Your task to perform on an android device: change timer sound Image 0: 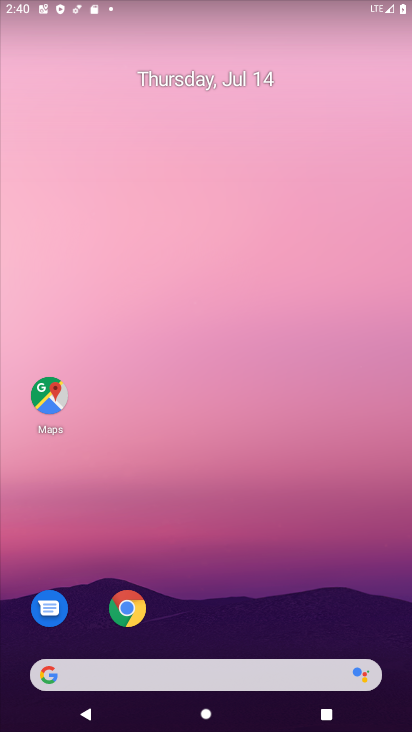
Step 0: drag from (36, 597) to (236, 156)
Your task to perform on an android device: change timer sound Image 1: 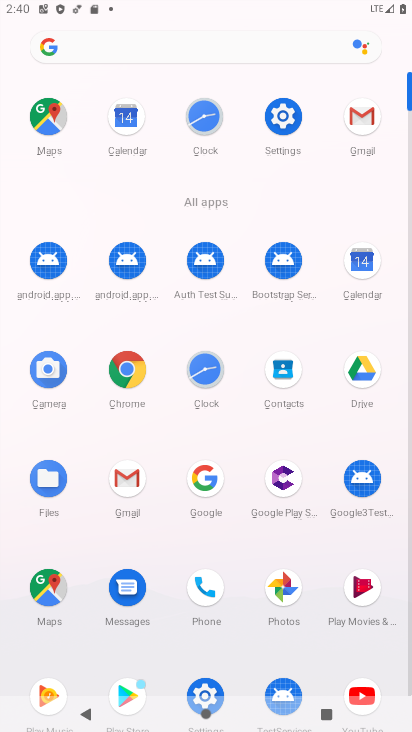
Step 1: click (290, 128)
Your task to perform on an android device: change timer sound Image 2: 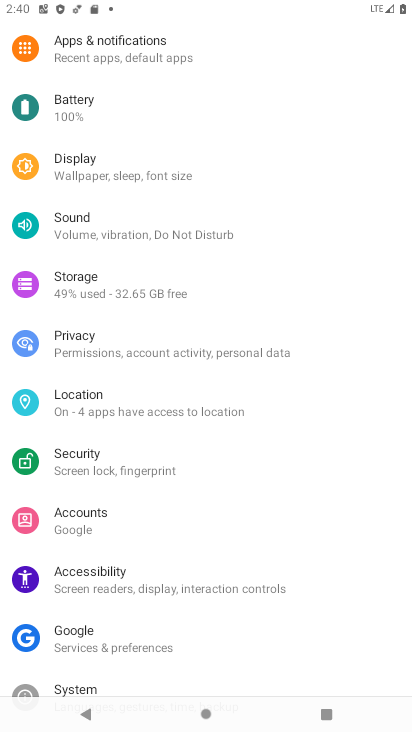
Step 2: click (110, 227)
Your task to perform on an android device: change timer sound Image 3: 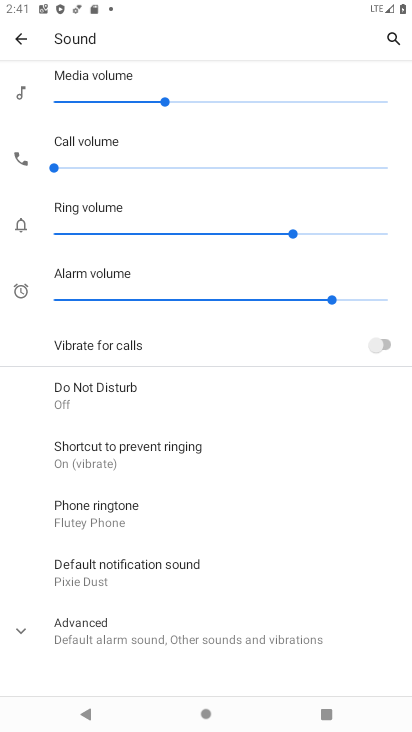
Step 3: task complete